Your task to perform on an android device: turn on wifi Image 0: 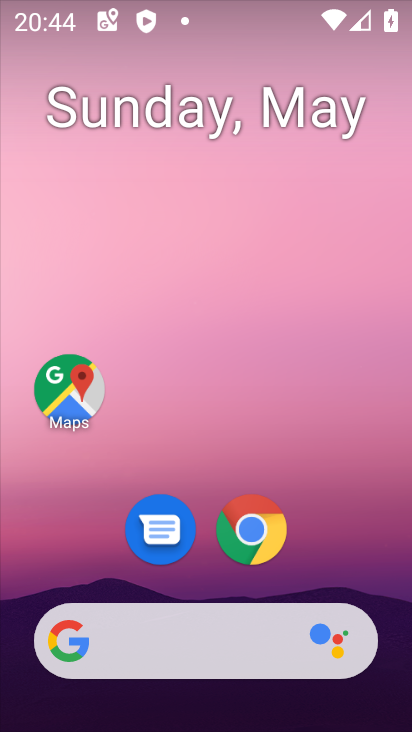
Step 0: drag from (350, 537) to (324, 3)
Your task to perform on an android device: turn on wifi Image 1: 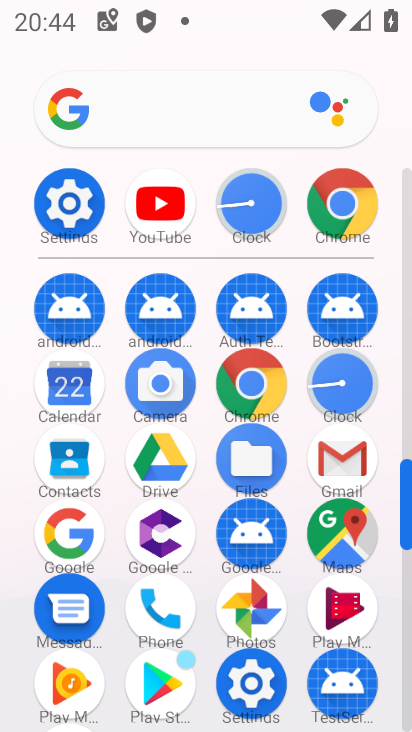
Step 1: click (61, 201)
Your task to perform on an android device: turn on wifi Image 2: 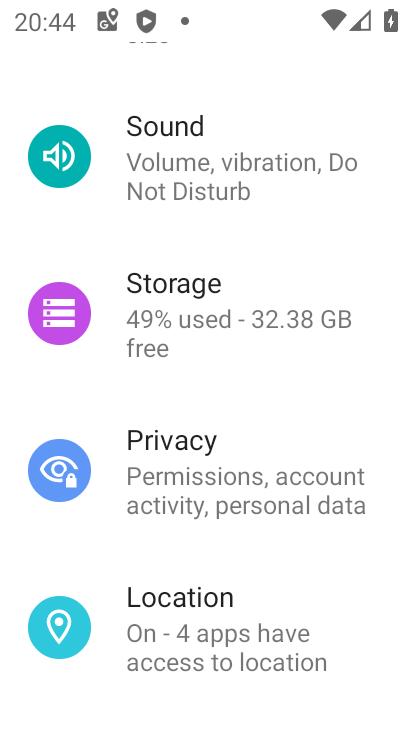
Step 2: drag from (390, 201) to (373, 644)
Your task to perform on an android device: turn on wifi Image 3: 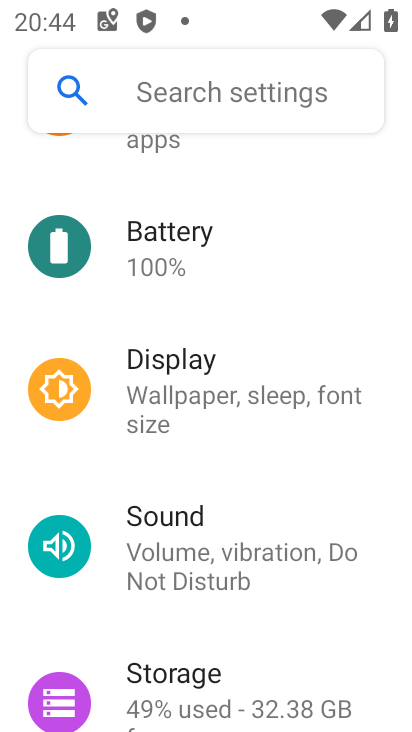
Step 3: drag from (398, 272) to (393, 723)
Your task to perform on an android device: turn on wifi Image 4: 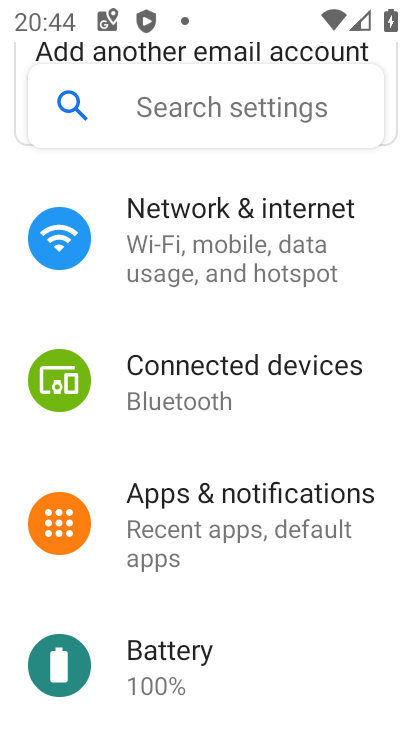
Step 4: click (230, 261)
Your task to perform on an android device: turn on wifi Image 5: 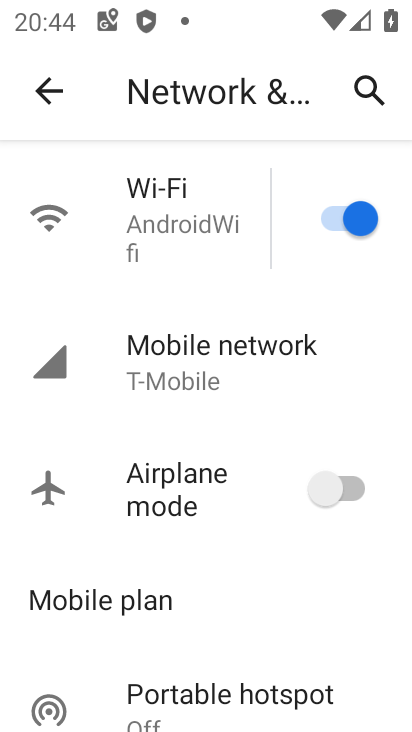
Step 5: task complete